Your task to perform on an android device: Open the stopwatch Image 0: 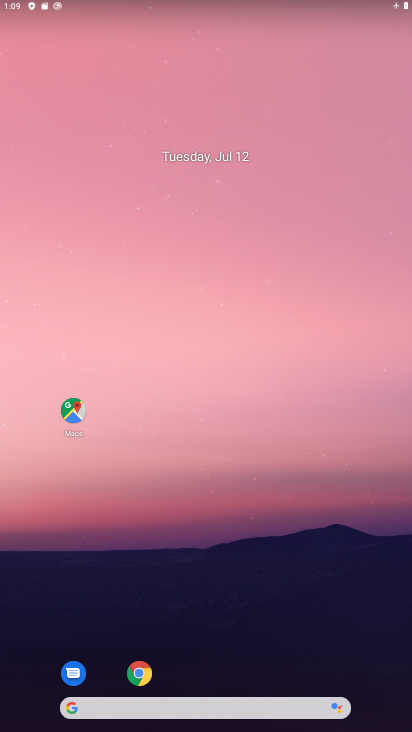
Step 0: drag from (354, 644) to (350, 157)
Your task to perform on an android device: Open the stopwatch Image 1: 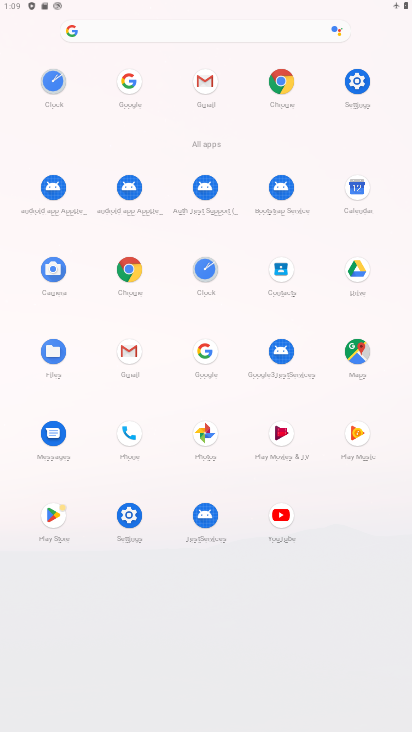
Step 1: click (206, 270)
Your task to perform on an android device: Open the stopwatch Image 2: 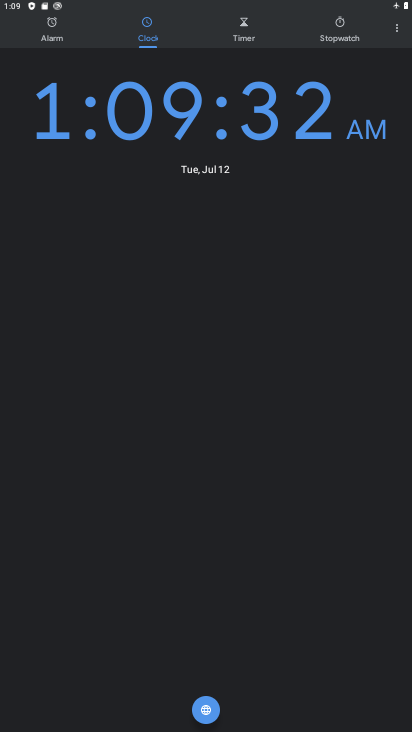
Step 2: click (335, 38)
Your task to perform on an android device: Open the stopwatch Image 3: 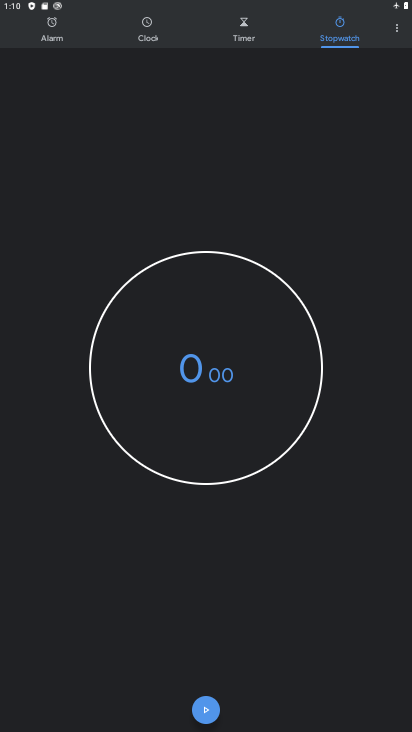
Step 3: task complete